Your task to perform on an android device: set the stopwatch Image 0: 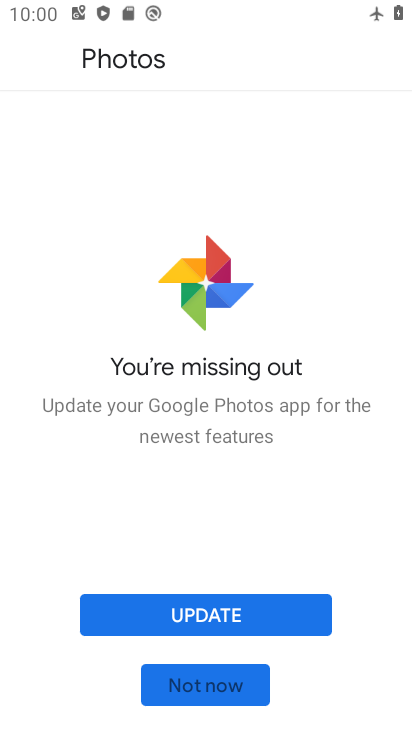
Step 0: press back button
Your task to perform on an android device: set the stopwatch Image 1: 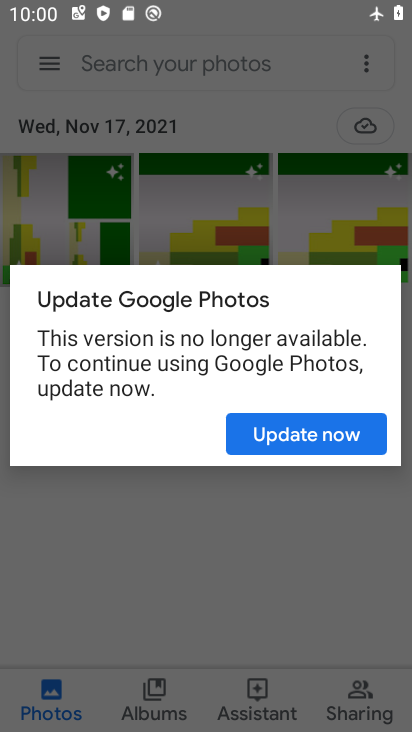
Step 1: press back button
Your task to perform on an android device: set the stopwatch Image 2: 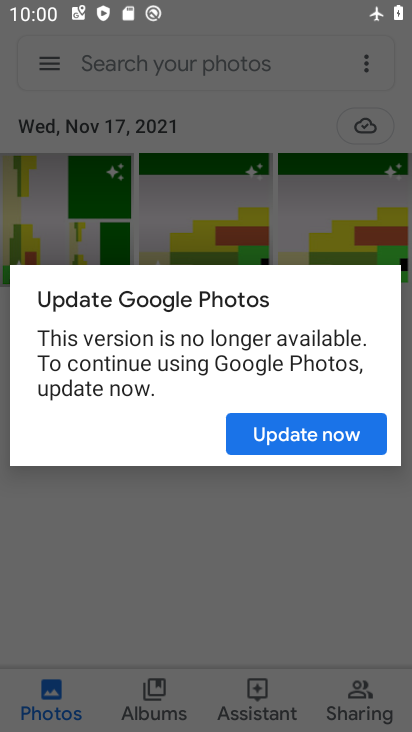
Step 2: press home button
Your task to perform on an android device: set the stopwatch Image 3: 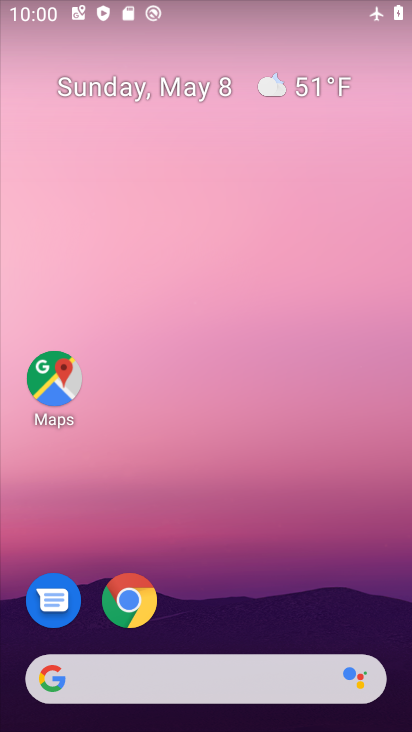
Step 3: drag from (226, 586) to (230, 7)
Your task to perform on an android device: set the stopwatch Image 4: 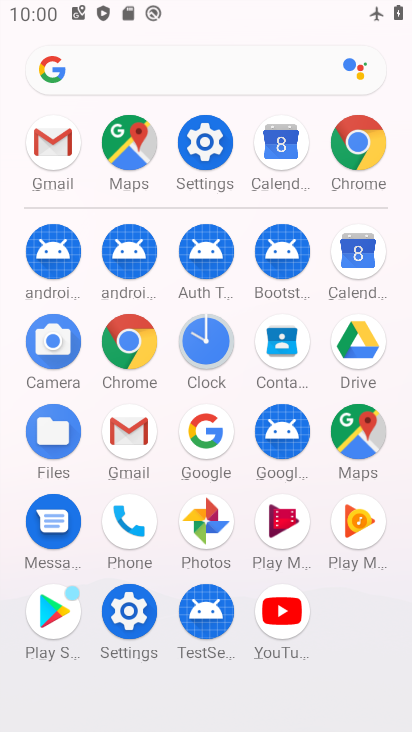
Step 4: click (203, 343)
Your task to perform on an android device: set the stopwatch Image 5: 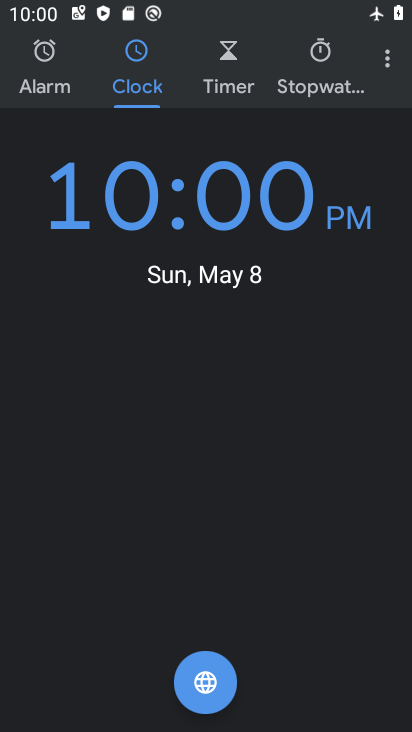
Step 5: click (297, 70)
Your task to perform on an android device: set the stopwatch Image 6: 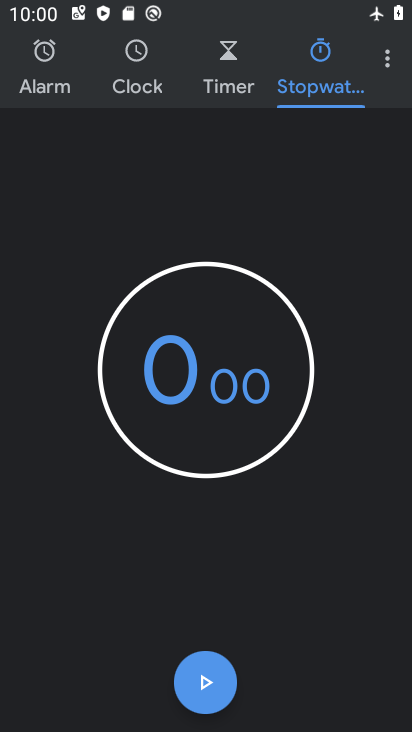
Step 6: click (233, 393)
Your task to perform on an android device: set the stopwatch Image 7: 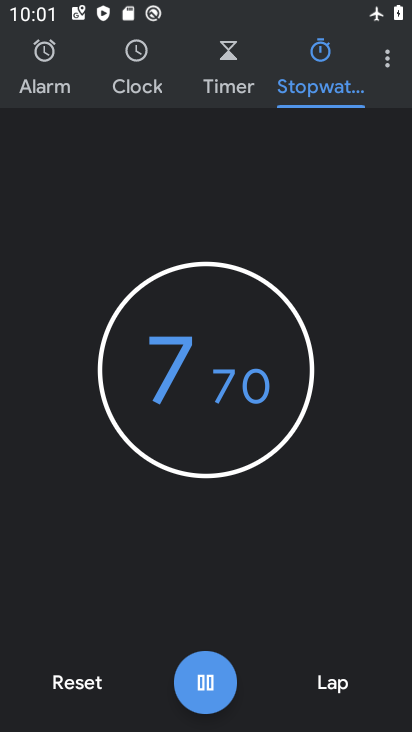
Step 7: task complete